Your task to perform on an android device: check out phone information Image 0: 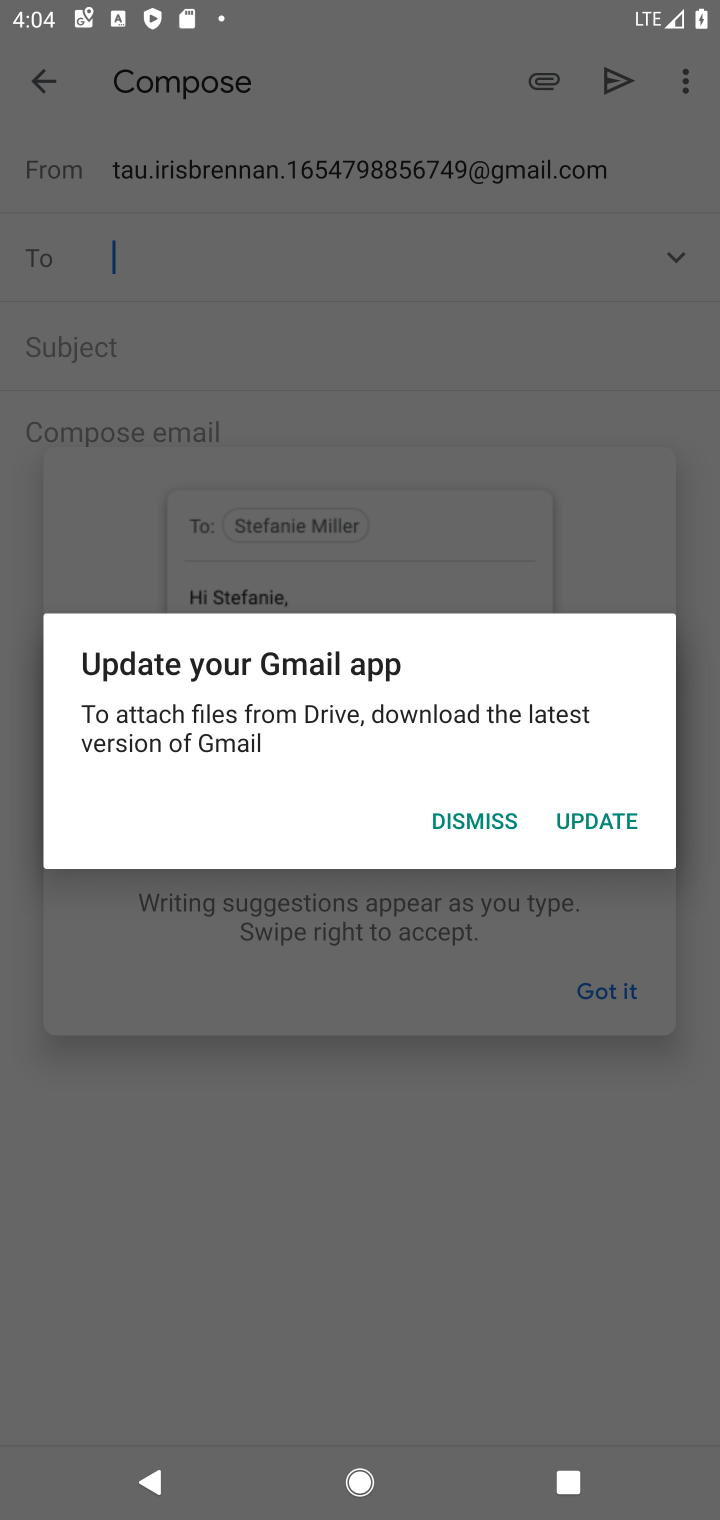
Step 0: click (492, 806)
Your task to perform on an android device: check out phone information Image 1: 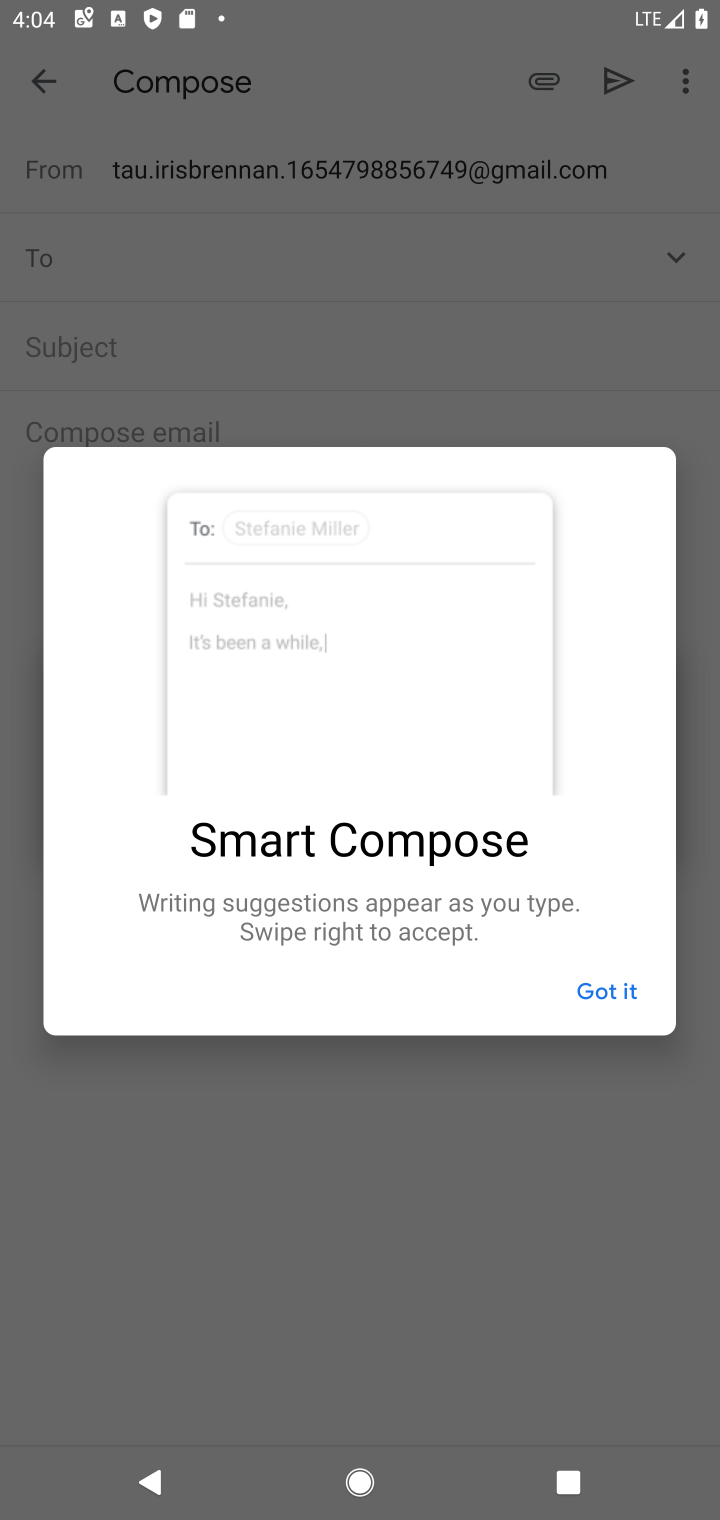
Step 1: press home button
Your task to perform on an android device: check out phone information Image 2: 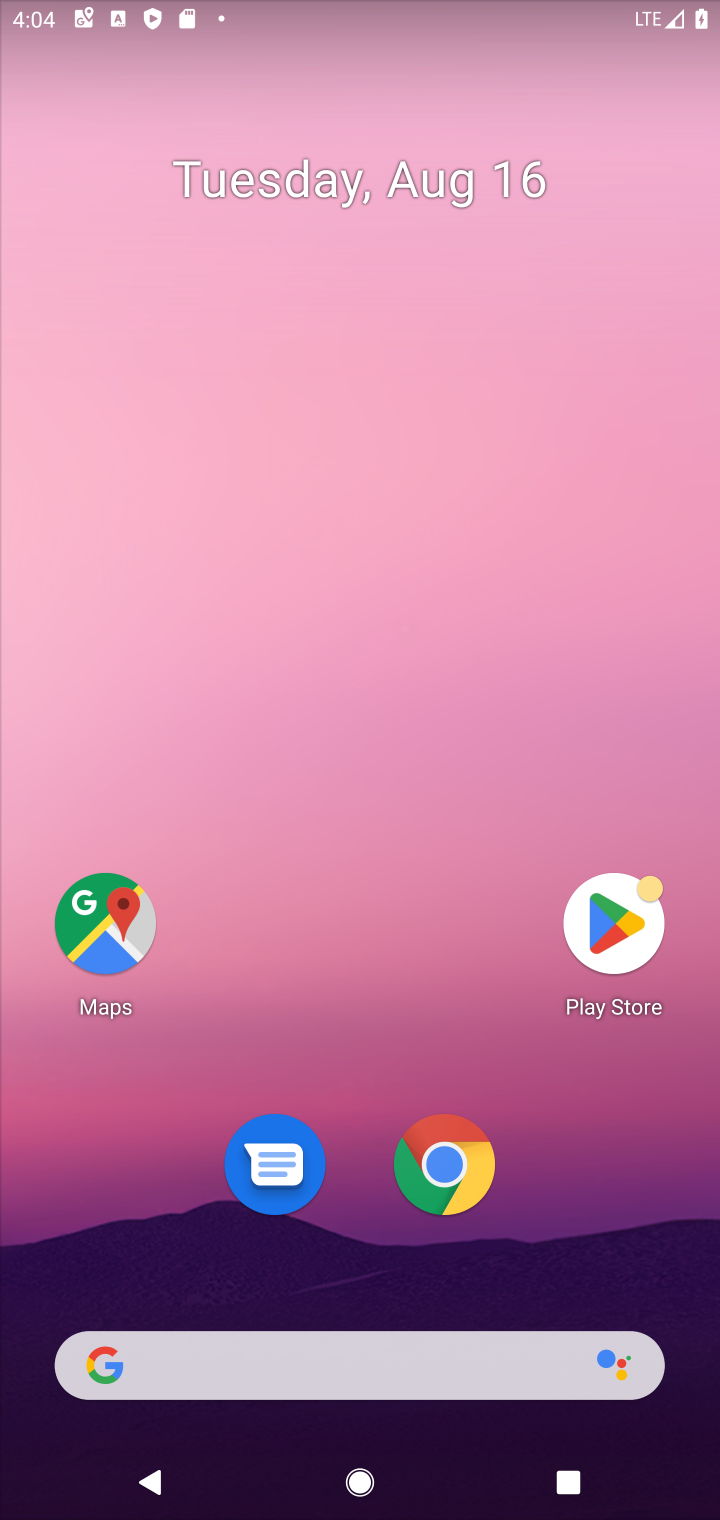
Step 2: drag from (390, 1039) to (463, 34)
Your task to perform on an android device: check out phone information Image 3: 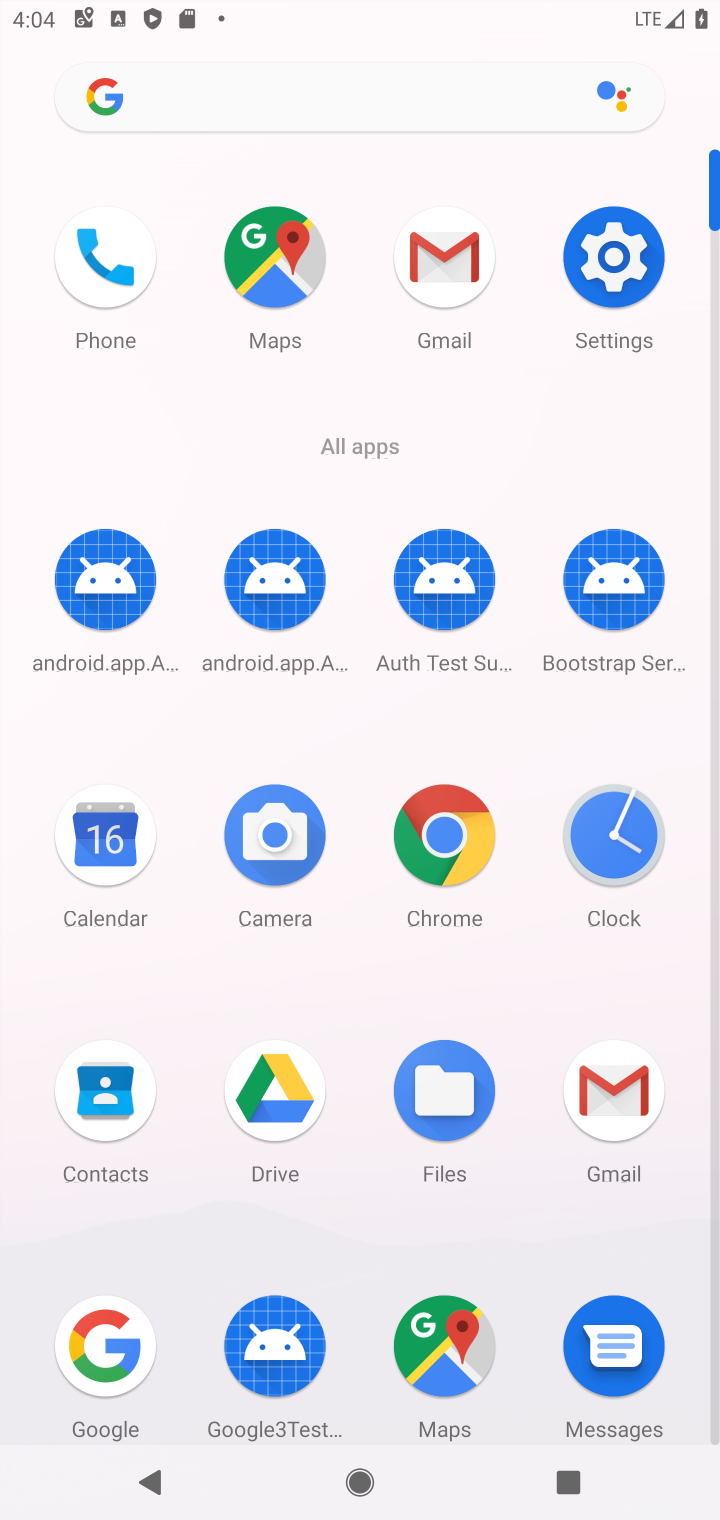
Step 3: click (605, 312)
Your task to perform on an android device: check out phone information Image 4: 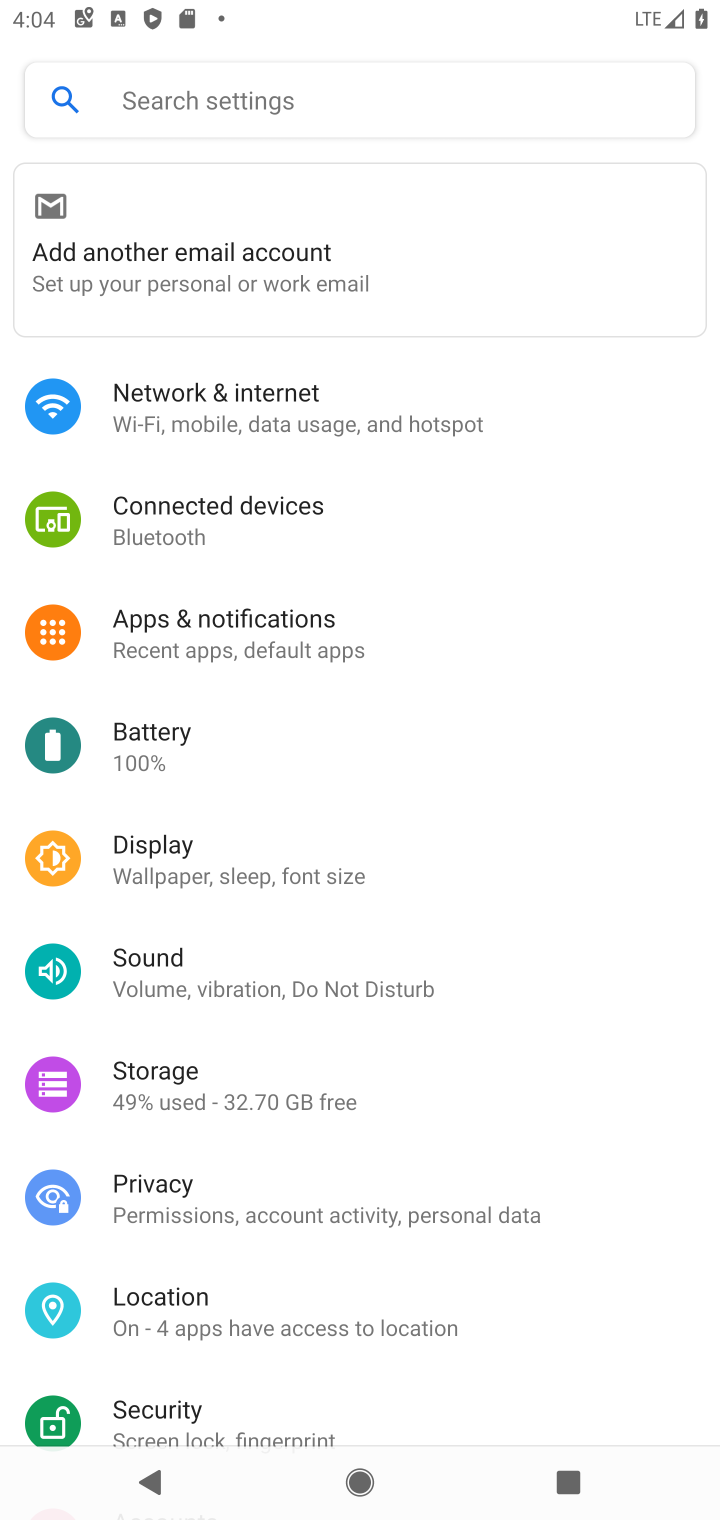
Step 4: drag from (392, 1241) to (441, 105)
Your task to perform on an android device: check out phone information Image 5: 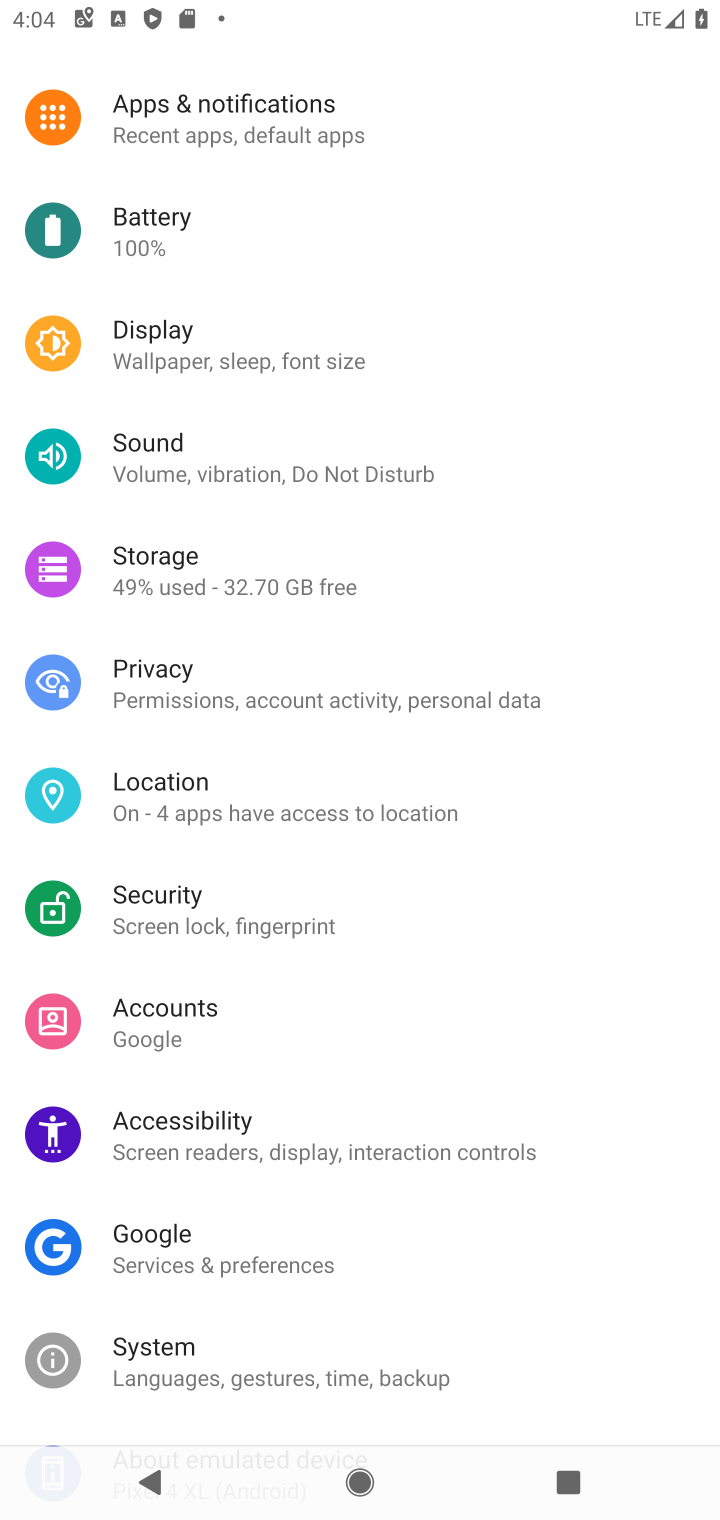
Step 5: drag from (393, 1167) to (381, 164)
Your task to perform on an android device: check out phone information Image 6: 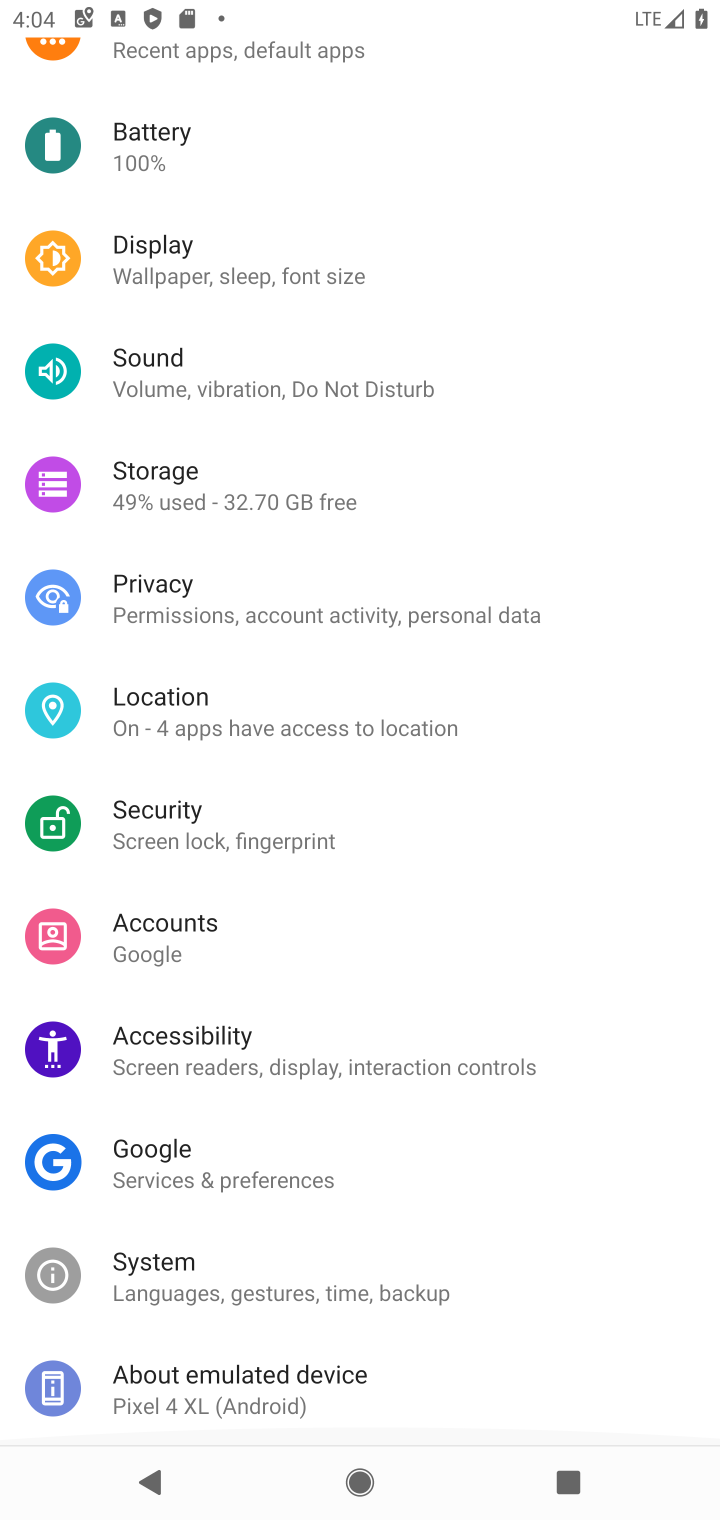
Step 6: click (398, 1383)
Your task to perform on an android device: check out phone information Image 7: 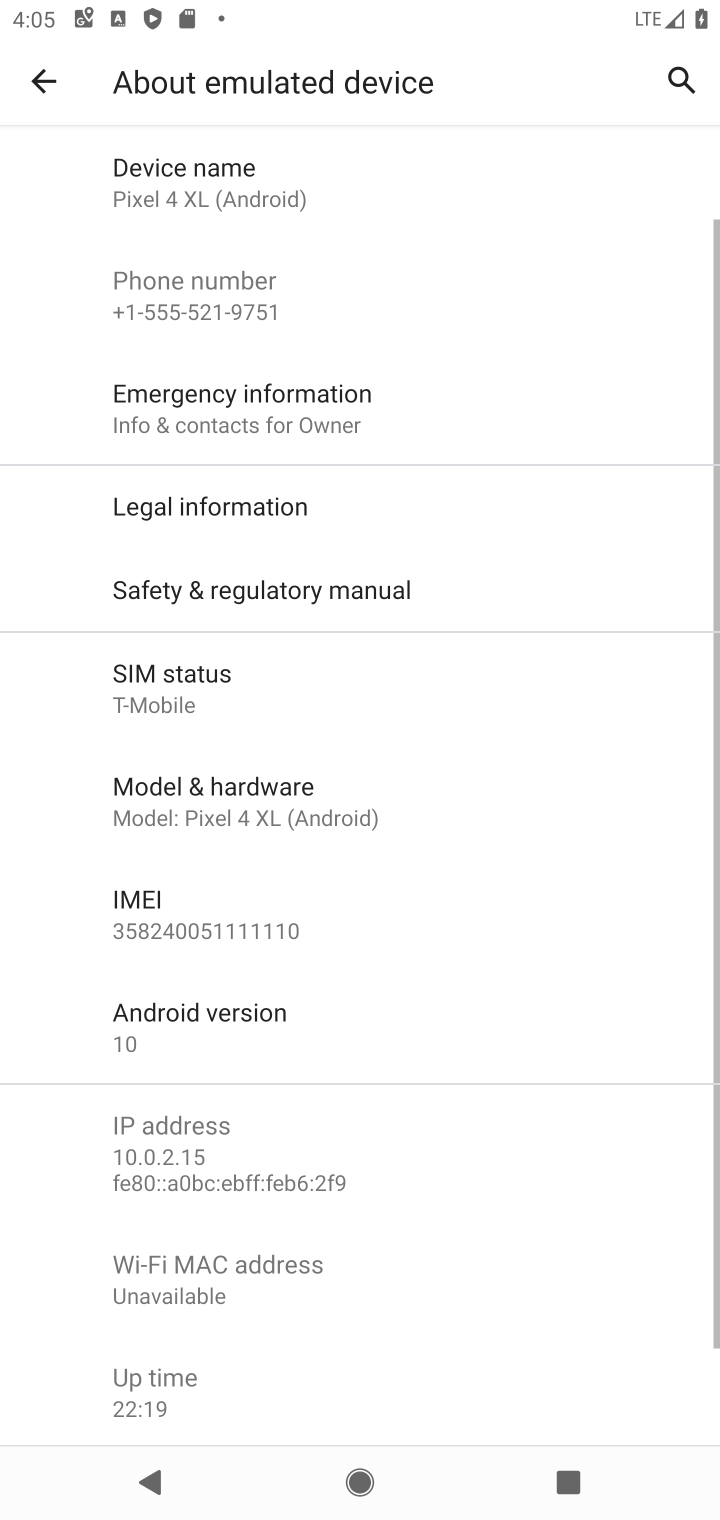
Step 7: task complete